Your task to perform on an android device: clear history in the chrome app Image 0: 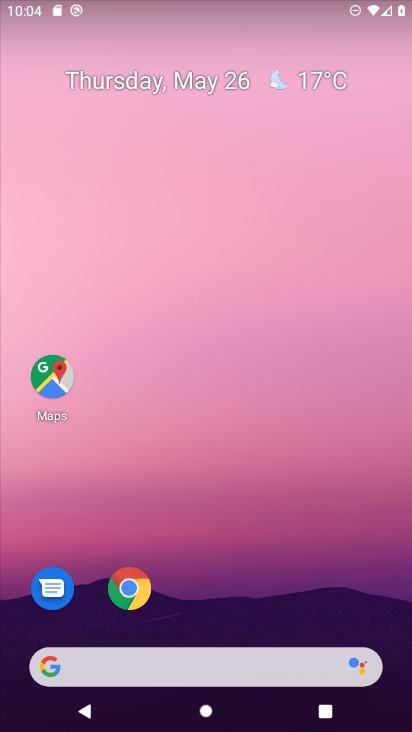
Step 0: click (129, 588)
Your task to perform on an android device: clear history in the chrome app Image 1: 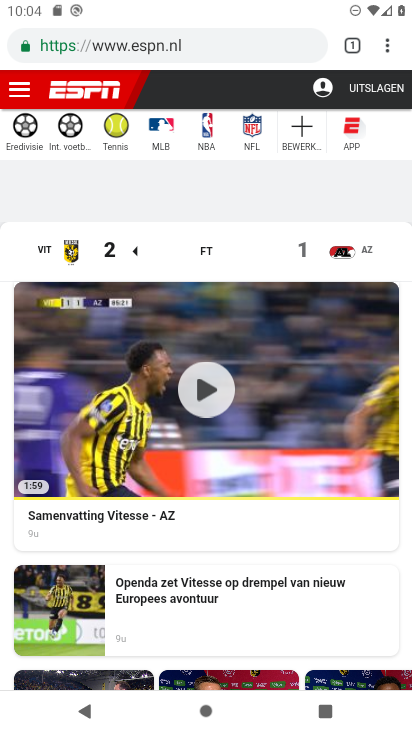
Step 1: click (388, 49)
Your task to perform on an android device: clear history in the chrome app Image 2: 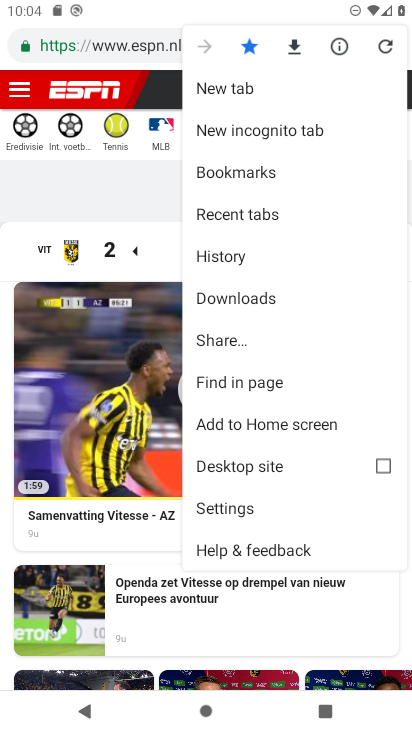
Step 2: click (220, 241)
Your task to perform on an android device: clear history in the chrome app Image 3: 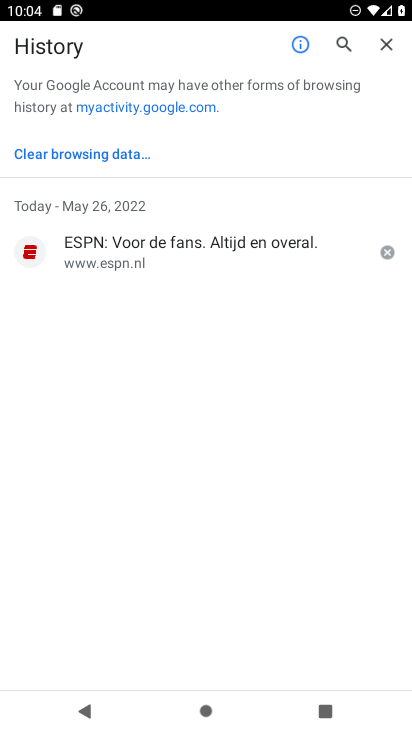
Step 3: click (82, 165)
Your task to perform on an android device: clear history in the chrome app Image 4: 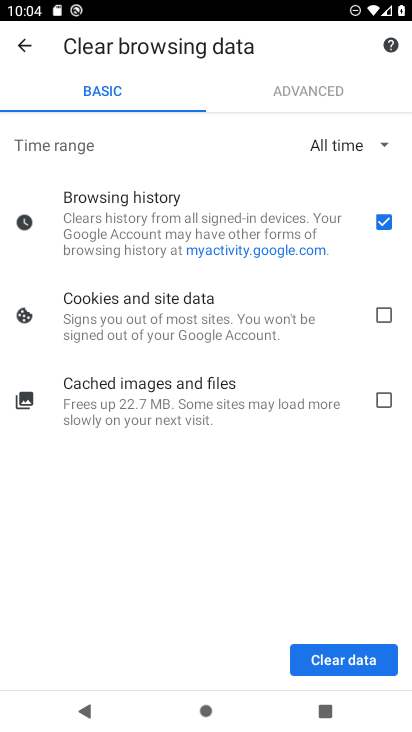
Step 4: click (350, 657)
Your task to perform on an android device: clear history in the chrome app Image 5: 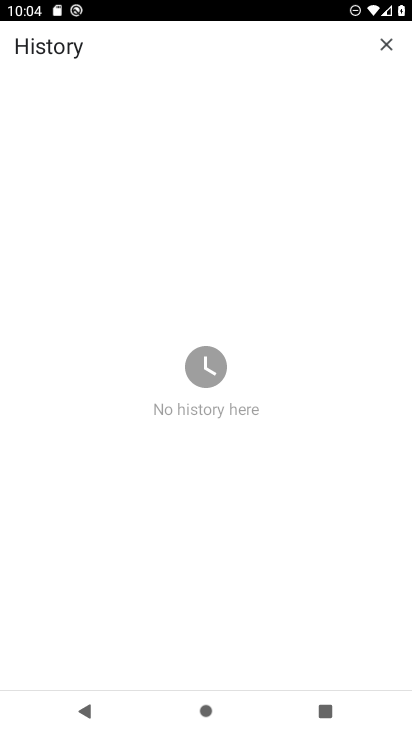
Step 5: task complete